Your task to perform on an android device: turn vacation reply on in the gmail app Image 0: 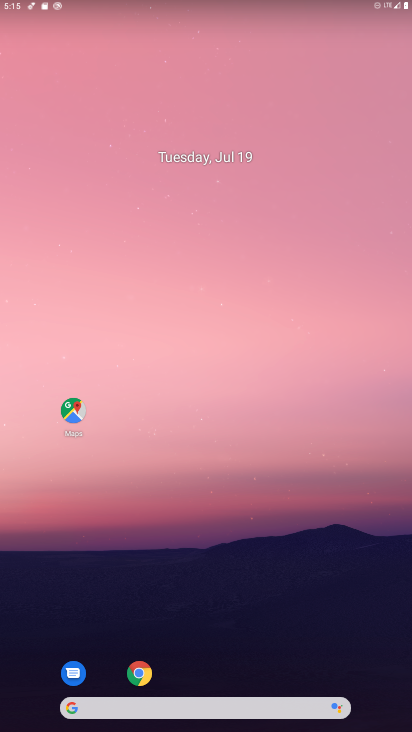
Step 0: drag from (207, 677) to (241, 16)
Your task to perform on an android device: turn vacation reply on in the gmail app Image 1: 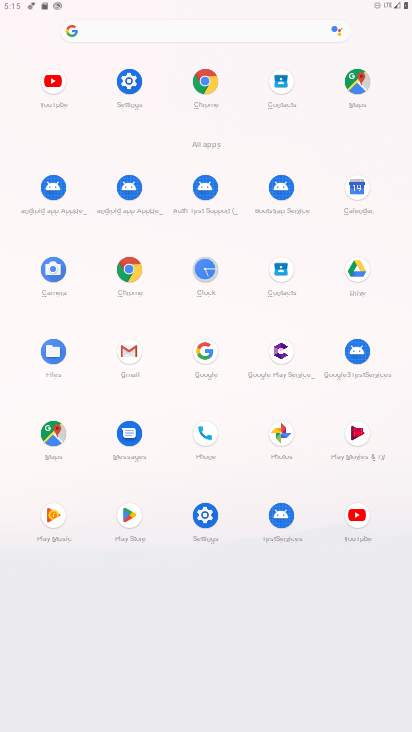
Step 1: click (128, 346)
Your task to perform on an android device: turn vacation reply on in the gmail app Image 2: 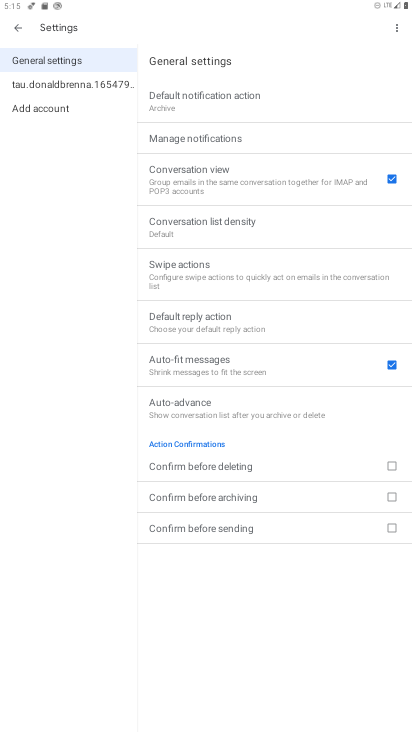
Step 2: click (85, 84)
Your task to perform on an android device: turn vacation reply on in the gmail app Image 3: 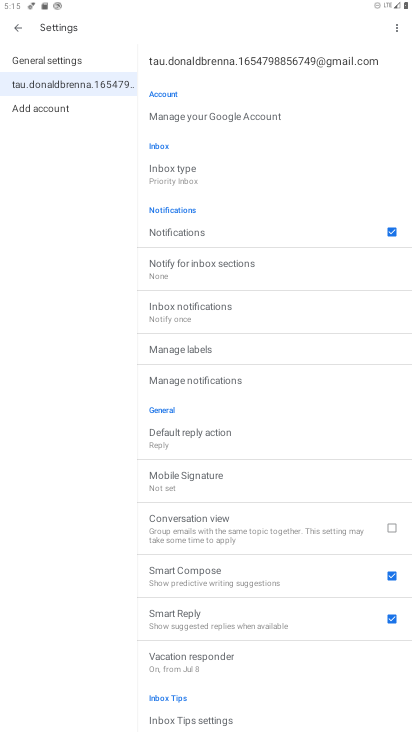
Step 3: click (217, 659)
Your task to perform on an android device: turn vacation reply on in the gmail app Image 4: 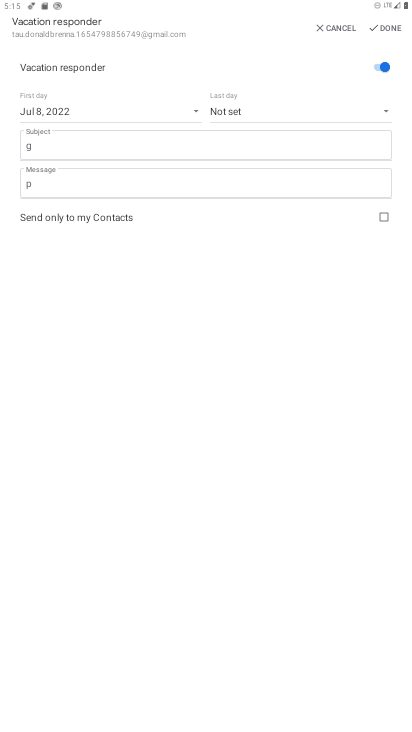
Step 4: task complete